Your task to perform on an android device: turn on translation in the chrome app Image 0: 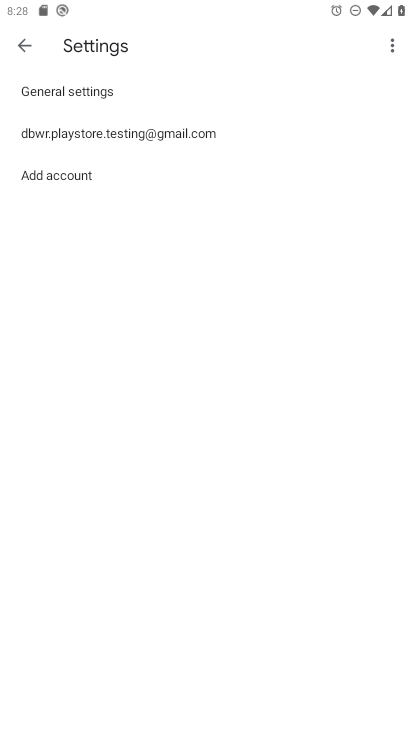
Step 0: press home button
Your task to perform on an android device: turn on translation in the chrome app Image 1: 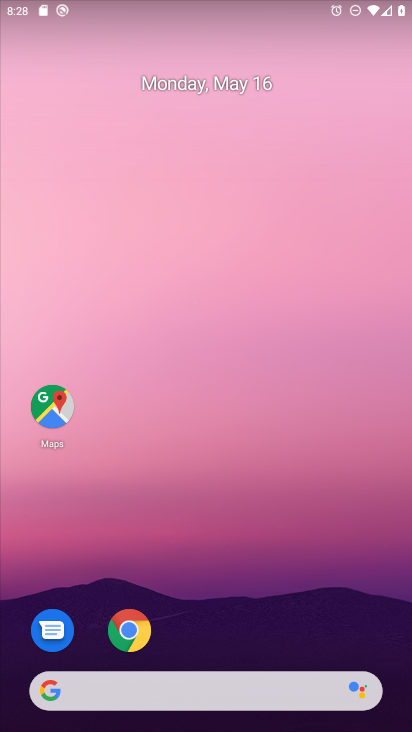
Step 1: click (129, 630)
Your task to perform on an android device: turn on translation in the chrome app Image 2: 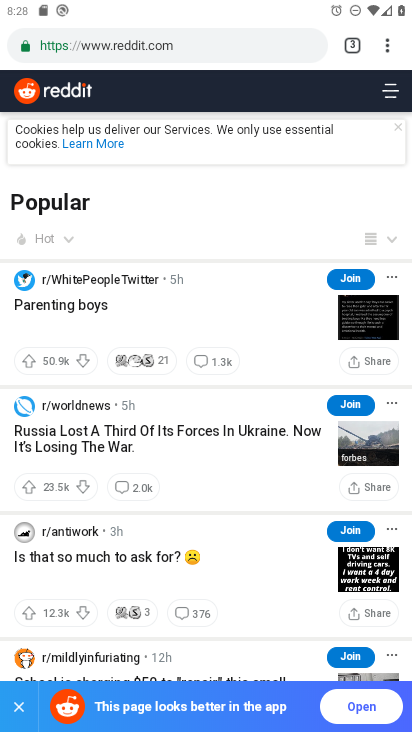
Step 2: click (143, 39)
Your task to perform on an android device: turn on translation in the chrome app Image 3: 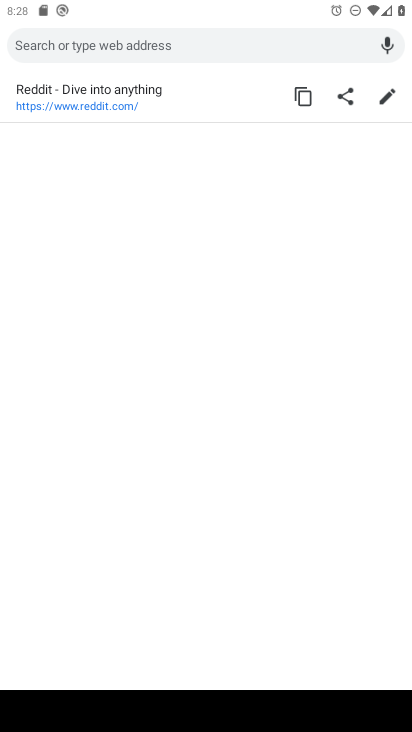
Step 3: press back button
Your task to perform on an android device: turn on translation in the chrome app Image 4: 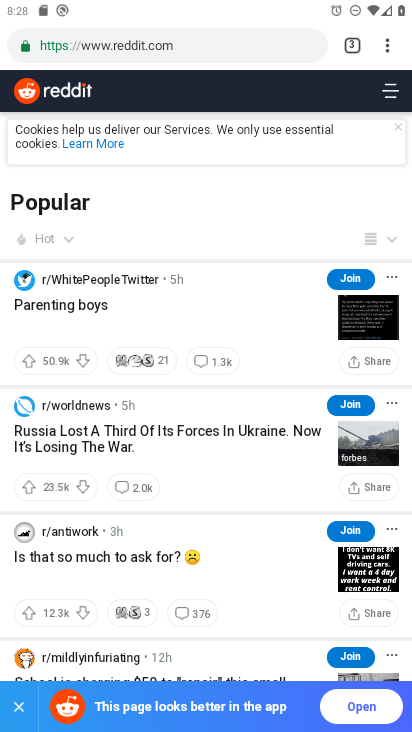
Step 4: click (349, 39)
Your task to perform on an android device: turn on translation in the chrome app Image 5: 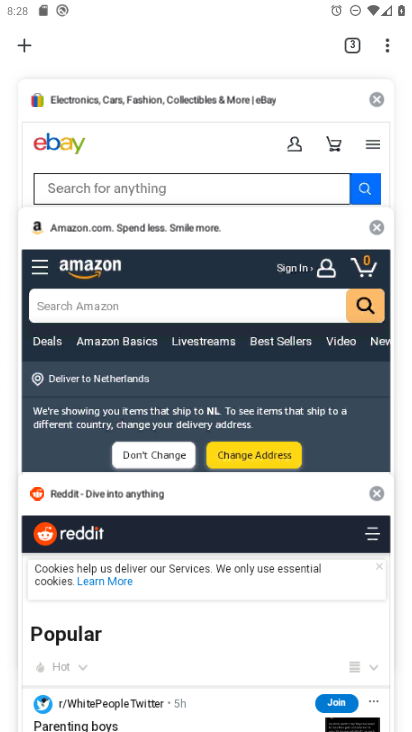
Step 5: click (137, 318)
Your task to perform on an android device: turn on translation in the chrome app Image 6: 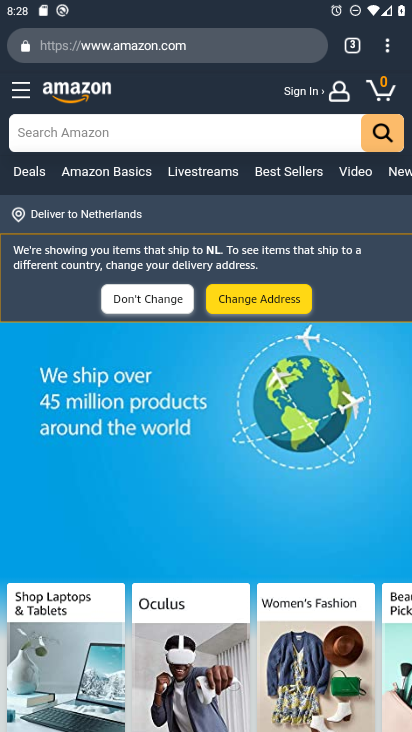
Step 6: click (376, 41)
Your task to perform on an android device: turn on translation in the chrome app Image 7: 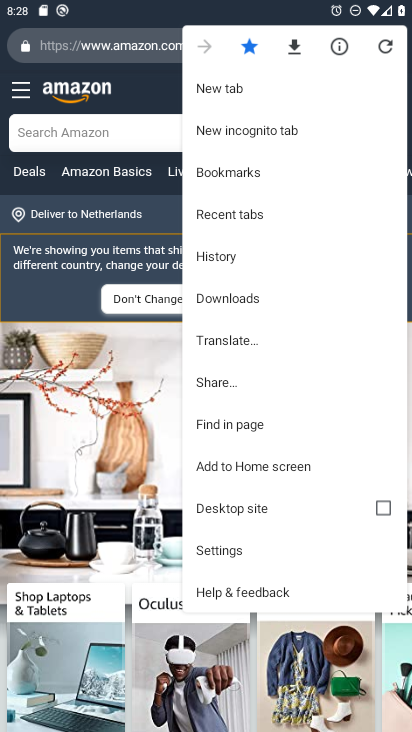
Step 7: click (267, 543)
Your task to perform on an android device: turn on translation in the chrome app Image 8: 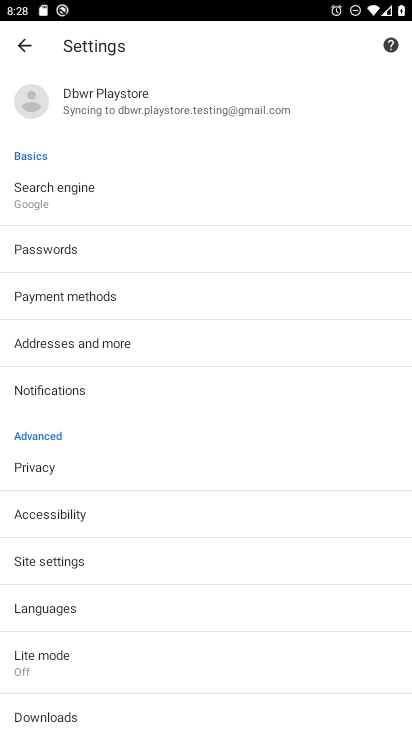
Step 8: press back button
Your task to perform on an android device: turn on translation in the chrome app Image 9: 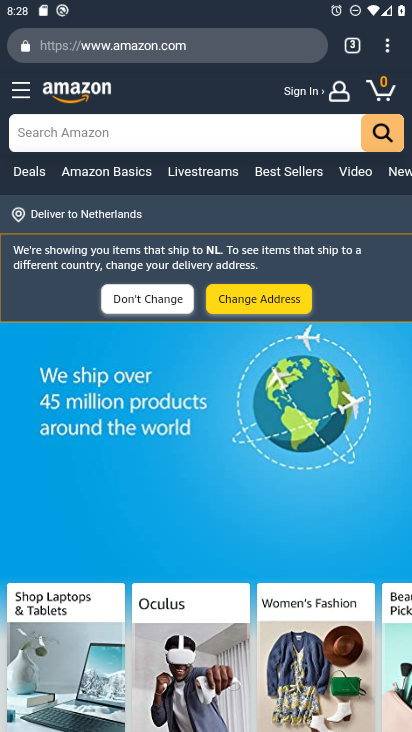
Step 9: click (377, 40)
Your task to perform on an android device: turn on translation in the chrome app Image 10: 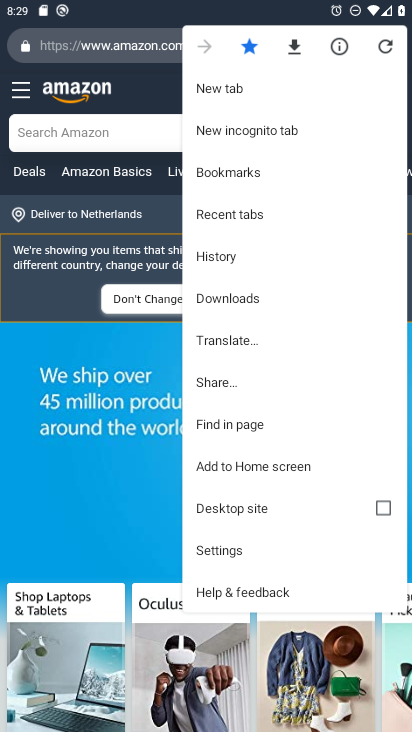
Step 10: click (281, 330)
Your task to perform on an android device: turn on translation in the chrome app Image 11: 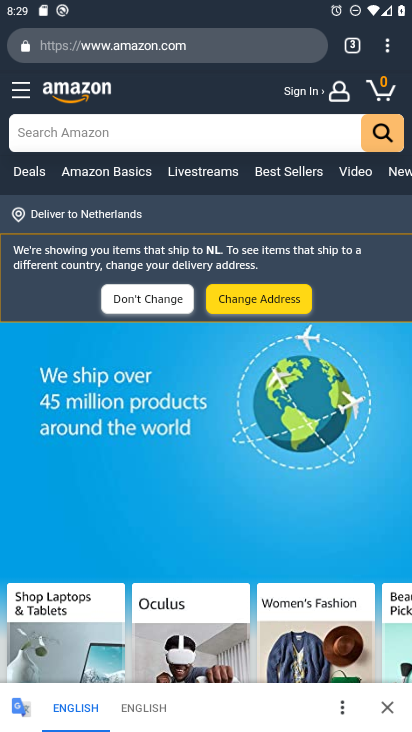
Step 11: click (340, 706)
Your task to perform on an android device: turn on translation in the chrome app Image 12: 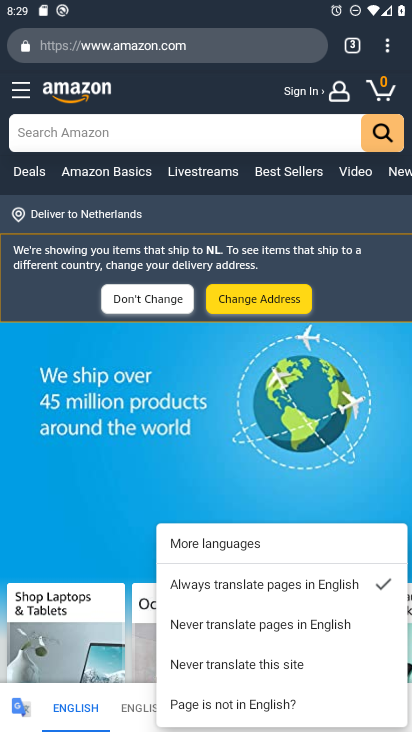
Step 12: click (69, 693)
Your task to perform on an android device: turn on translation in the chrome app Image 13: 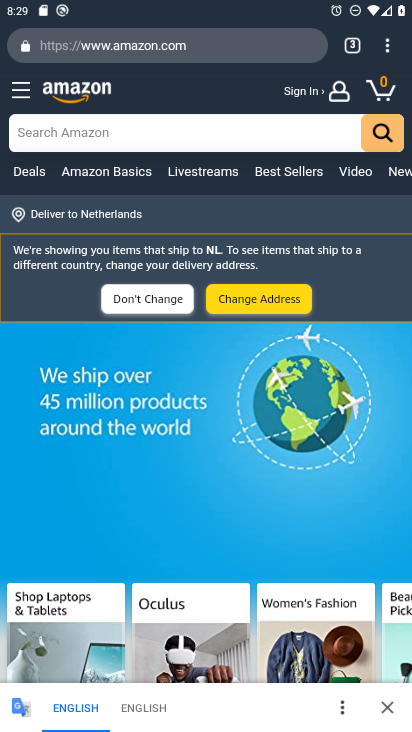
Step 13: task complete